Your task to perform on an android device: Open my contact list Image 0: 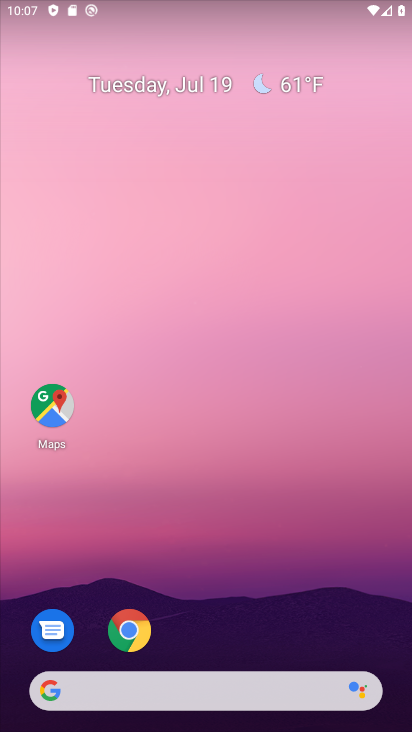
Step 0: drag from (285, 115) to (321, 73)
Your task to perform on an android device: Open my contact list Image 1: 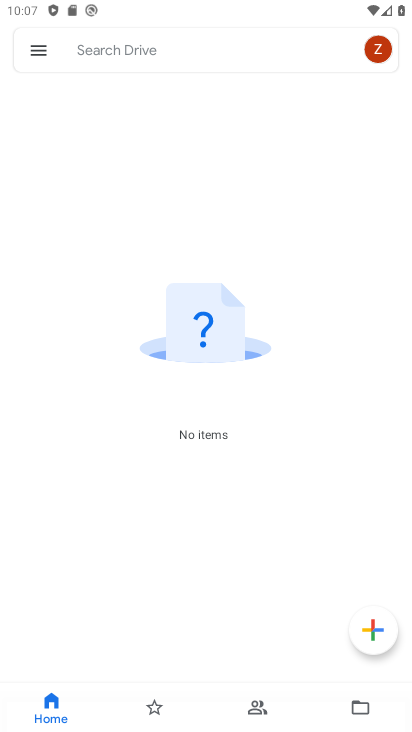
Step 1: press home button
Your task to perform on an android device: Open my contact list Image 2: 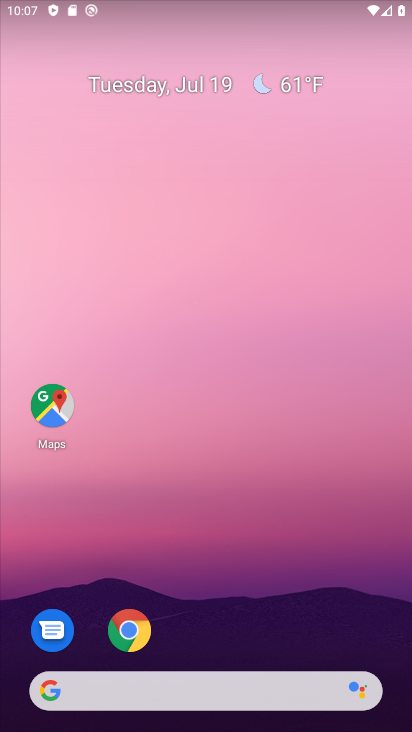
Step 2: drag from (363, 638) to (305, 168)
Your task to perform on an android device: Open my contact list Image 3: 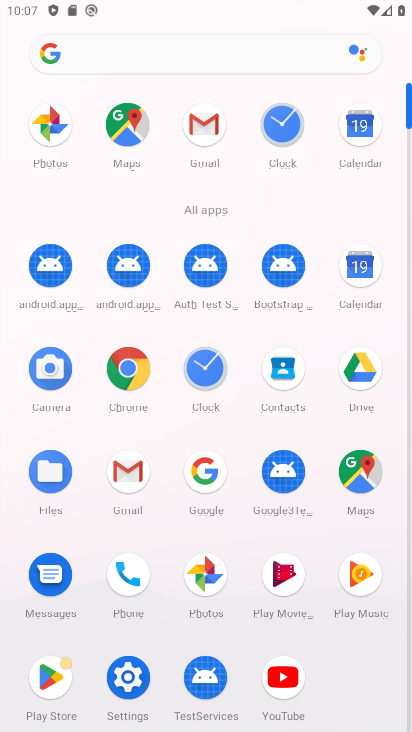
Step 3: click (286, 371)
Your task to perform on an android device: Open my contact list Image 4: 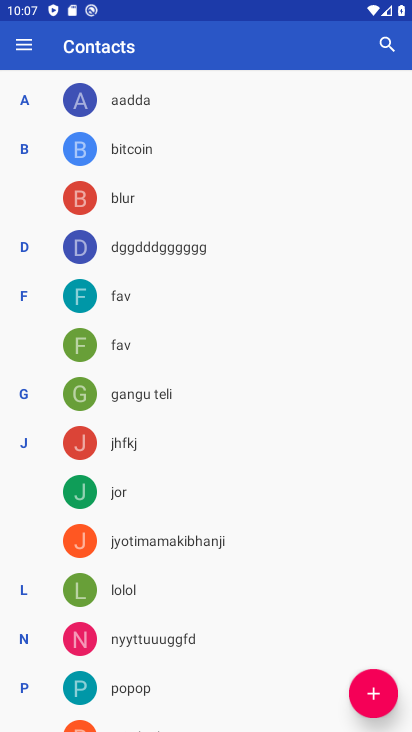
Step 4: task complete